Your task to perform on an android device: toggle airplane mode Image 0: 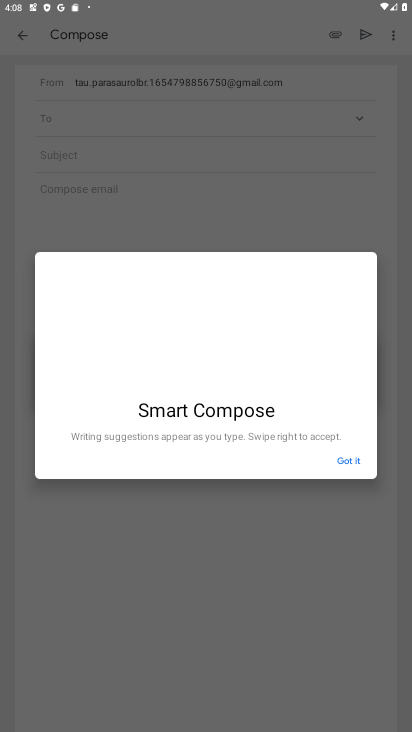
Step 0: press home button
Your task to perform on an android device: toggle airplane mode Image 1: 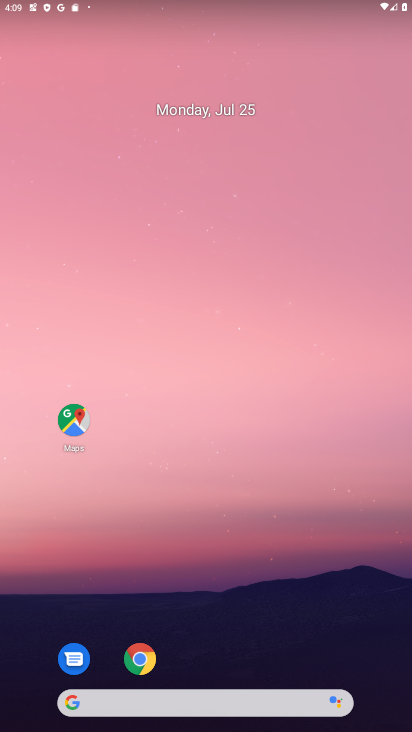
Step 1: drag from (391, 667) to (341, 150)
Your task to perform on an android device: toggle airplane mode Image 2: 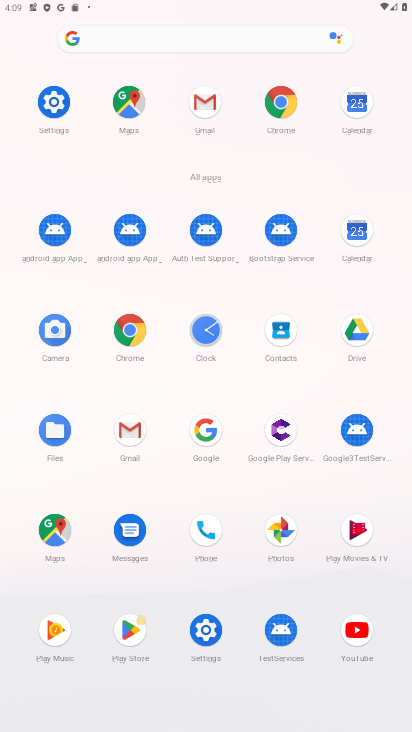
Step 2: click (205, 628)
Your task to perform on an android device: toggle airplane mode Image 3: 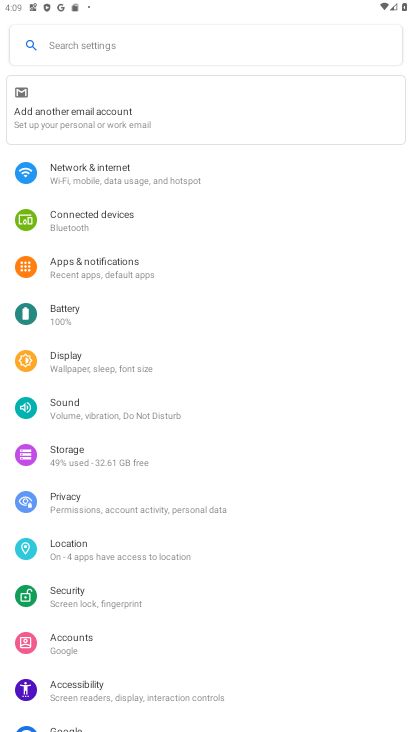
Step 3: click (86, 166)
Your task to perform on an android device: toggle airplane mode Image 4: 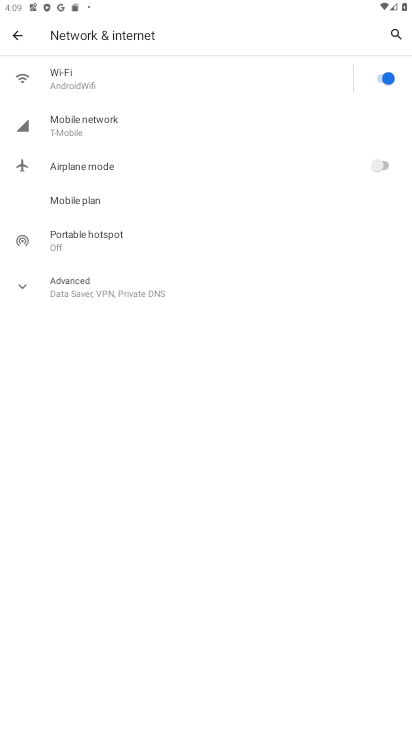
Step 4: click (378, 159)
Your task to perform on an android device: toggle airplane mode Image 5: 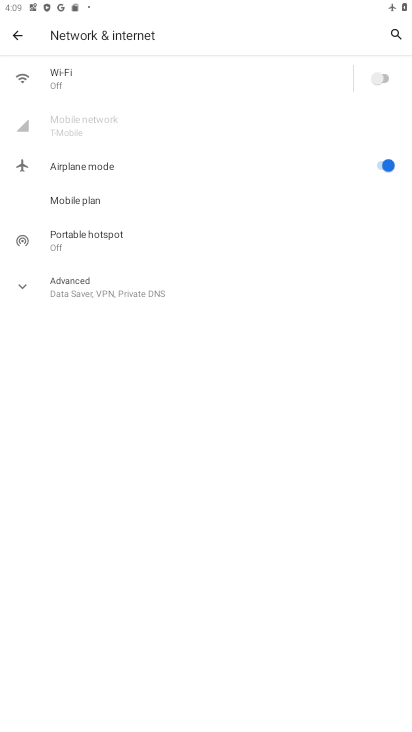
Step 5: task complete